Your task to perform on an android device: add a contact in the contacts app Image 0: 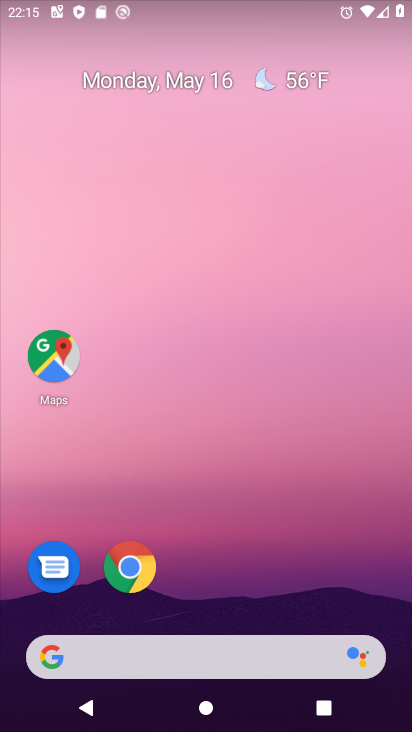
Step 0: drag from (288, 528) to (320, 238)
Your task to perform on an android device: add a contact in the contacts app Image 1: 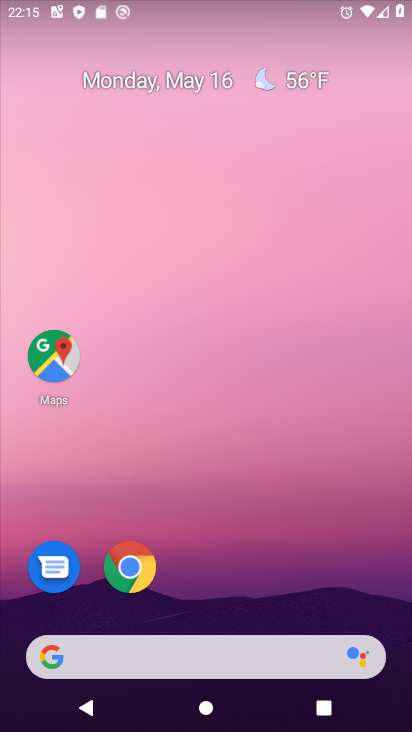
Step 1: drag from (212, 595) to (234, 509)
Your task to perform on an android device: add a contact in the contacts app Image 2: 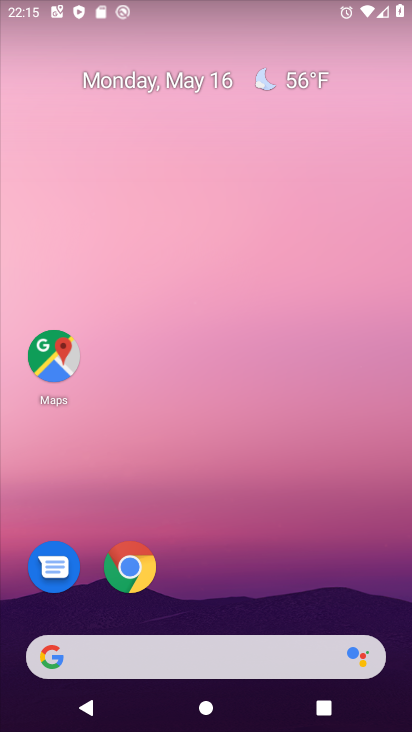
Step 2: drag from (202, 644) to (320, 162)
Your task to perform on an android device: add a contact in the contacts app Image 3: 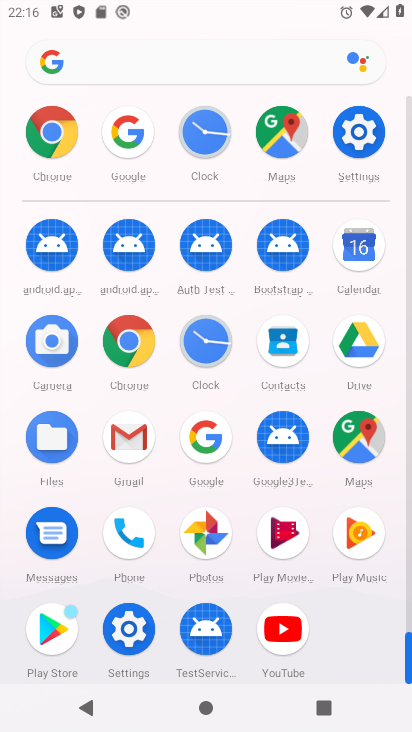
Step 3: click (126, 520)
Your task to perform on an android device: add a contact in the contacts app Image 4: 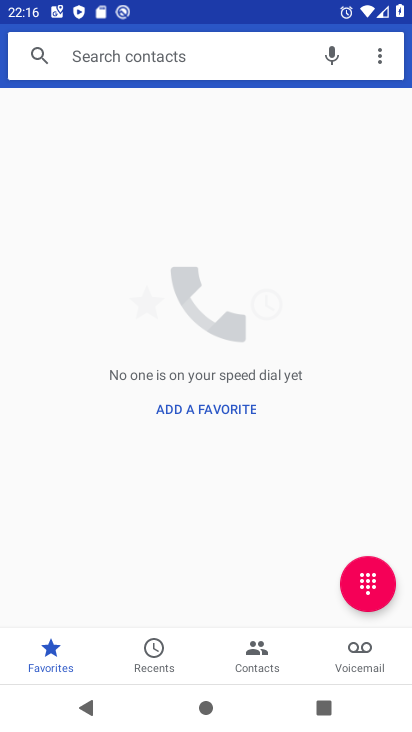
Step 4: click (193, 407)
Your task to perform on an android device: add a contact in the contacts app Image 5: 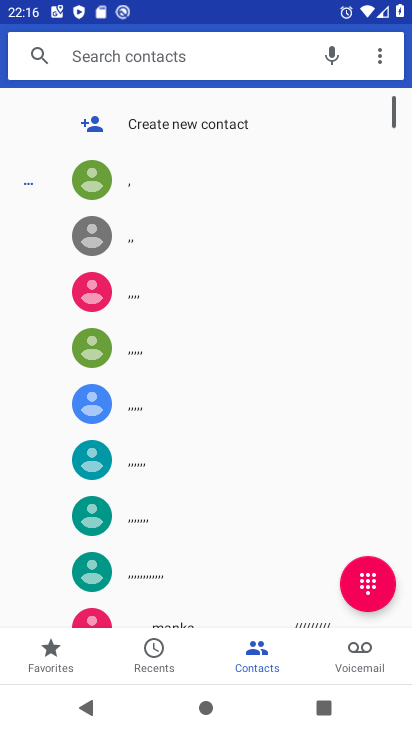
Step 5: click (181, 123)
Your task to perform on an android device: add a contact in the contacts app Image 6: 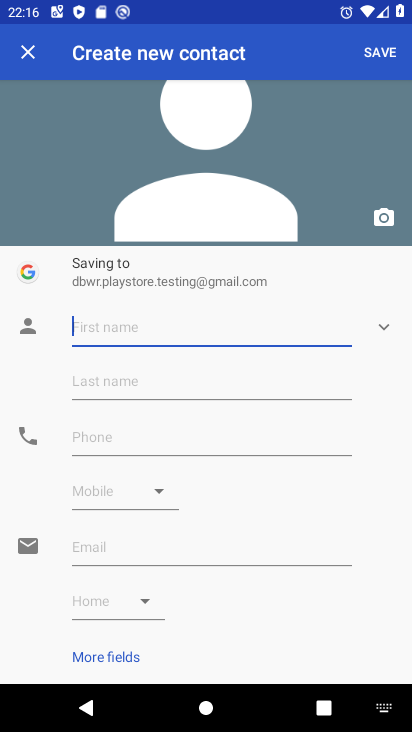
Step 6: click (189, 326)
Your task to perform on an android device: add a contact in the contacts app Image 7: 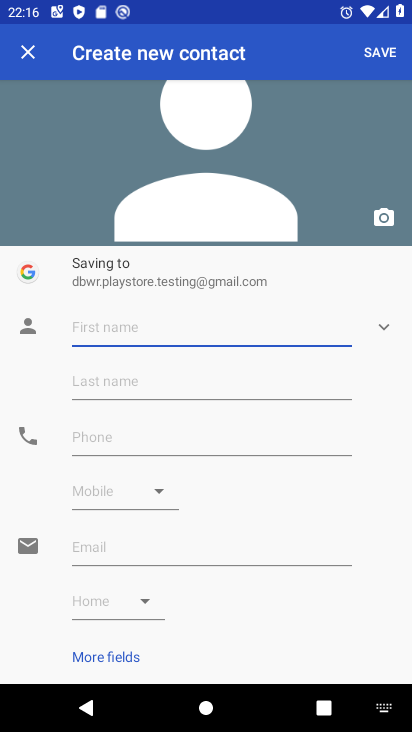
Step 7: type "jhjjjhj"
Your task to perform on an android device: add a contact in the contacts app Image 8: 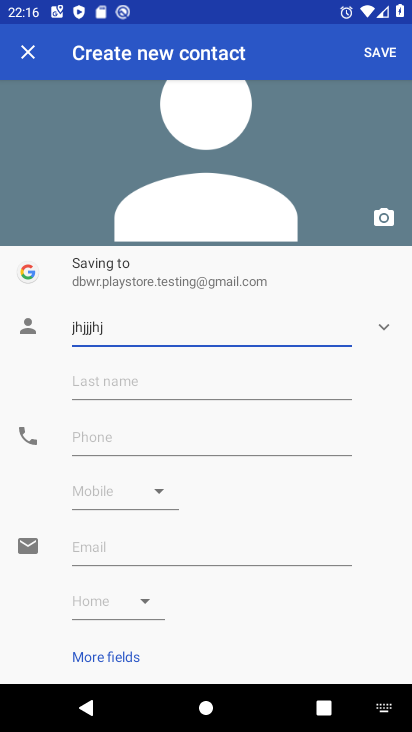
Step 8: click (146, 438)
Your task to perform on an android device: add a contact in the contacts app Image 9: 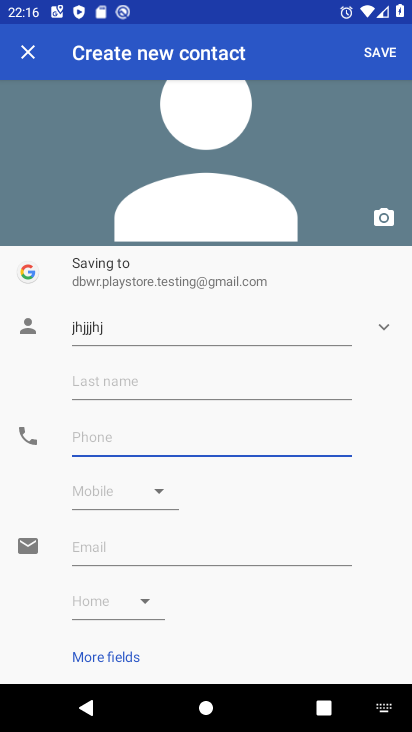
Step 9: type "0987533456789"
Your task to perform on an android device: add a contact in the contacts app Image 10: 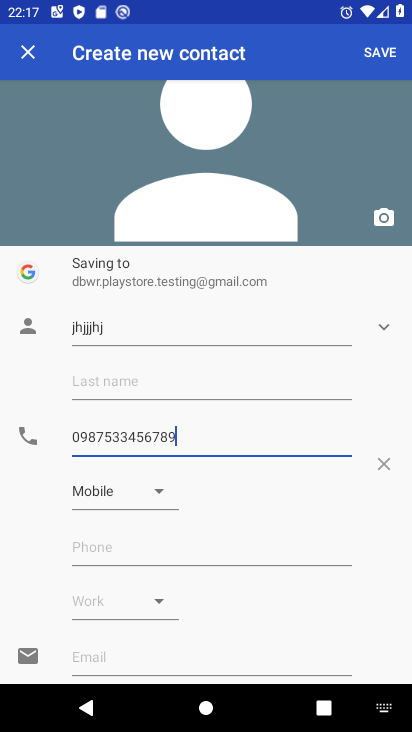
Step 10: click (385, 46)
Your task to perform on an android device: add a contact in the contacts app Image 11: 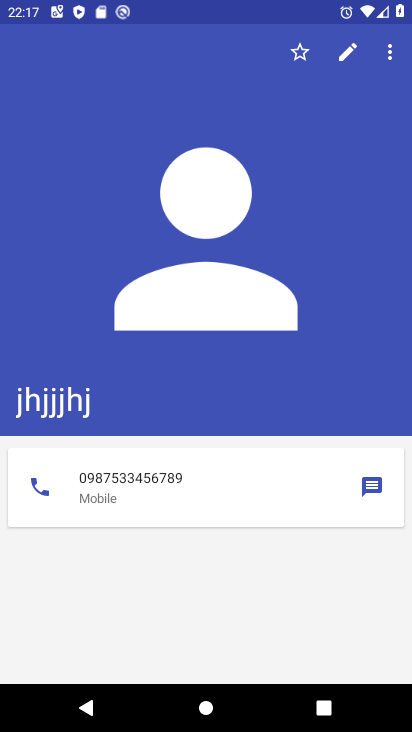
Step 11: task complete